Your task to perform on an android device: open sync settings in chrome Image 0: 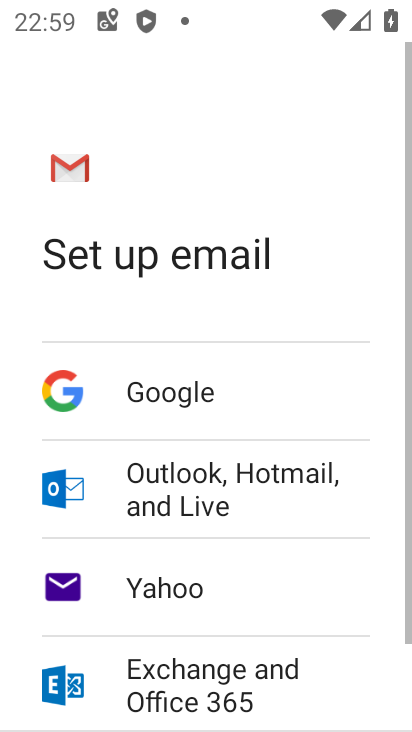
Step 0: press home button
Your task to perform on an android device: open sync settings in chrome Image 1: 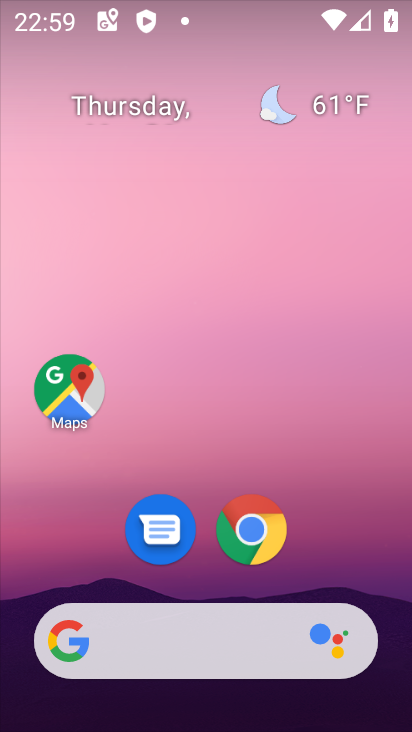
Step 1: click (277, 540)
Your task to perform on an android device: open sync settings in chrome Image 2: 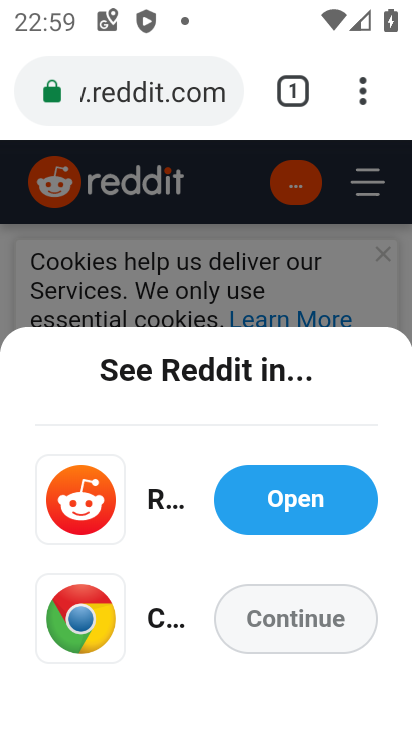
Step 2: click (367, 98)
Your task to perform on an android device: open sync settings in chrome Image 3: 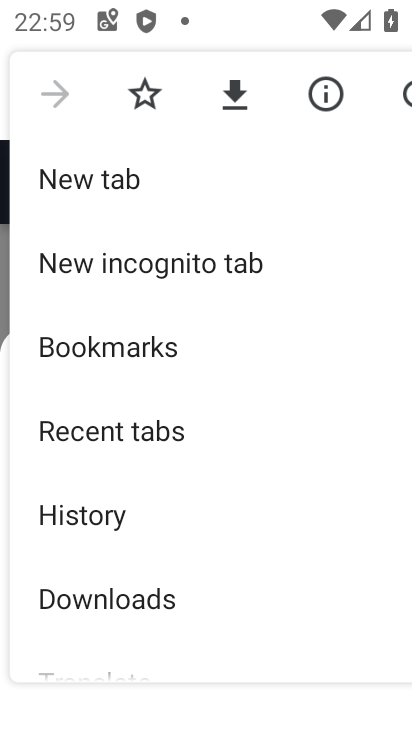
Step 3: drag from (203, 563) to (205, 260)
Your task to perform on an android device: open sync settings in chrome Image 4: 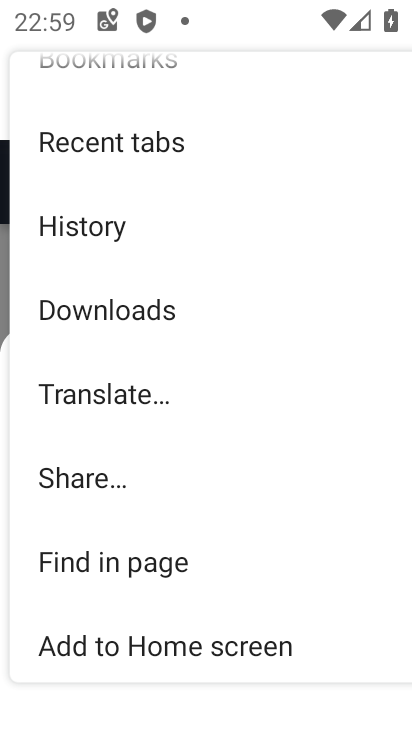
Step 4: drag from (196, 609) to (215, 244)
Your task to perform on an android device: open sync settings in chrome Image 5: 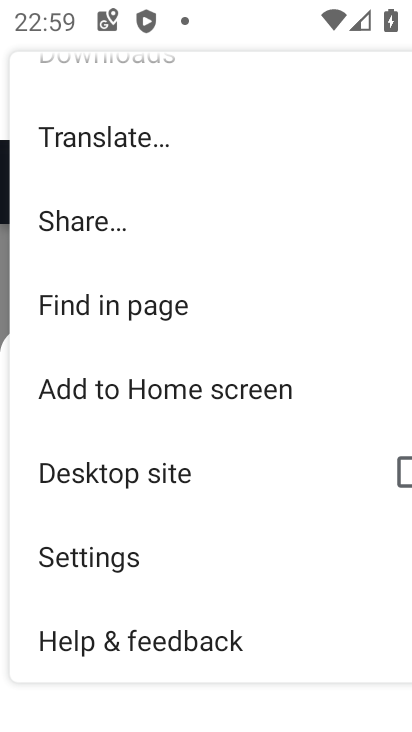
Step 5: click (174, 559)
Your task to perform on an android device: open sync settings in chrome Image 6: 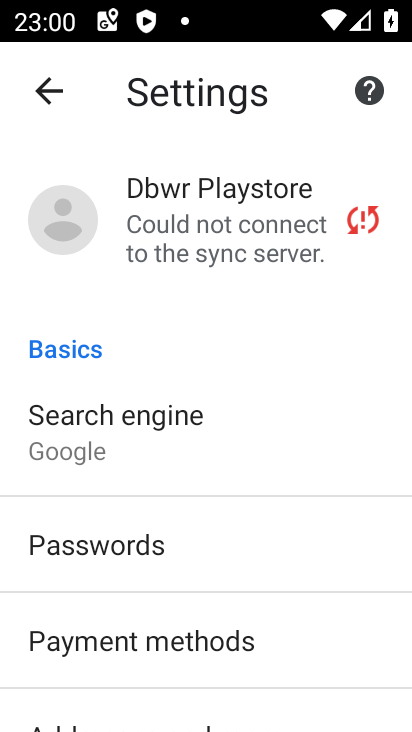
Step 6: drag from (174, 559) to (173, 237)
Your task to perform on an android device: open sync settings in chrome Image 7: 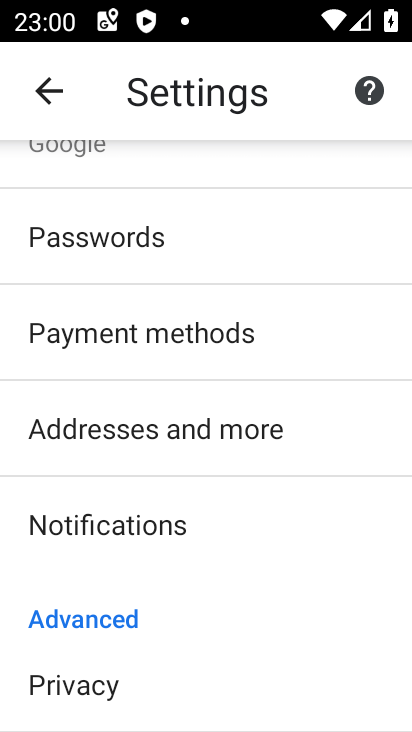
Step 7: drag from (135, 603) to (153, 373)
Your task to perform on an android device: open sync settings in chrome Image 8: 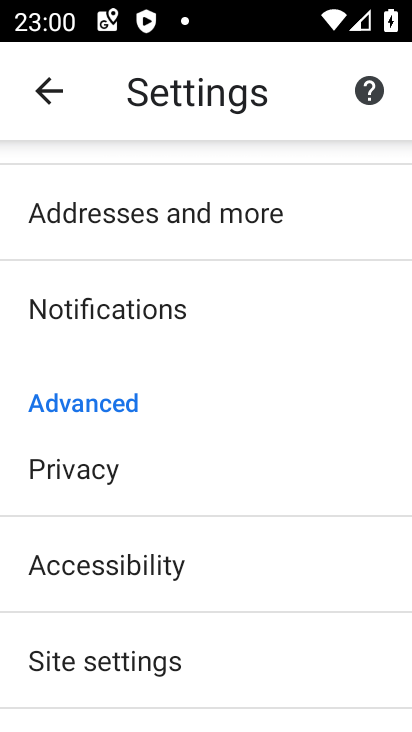
Step 8: drag from (211, 311) to (194, 700)
Your task to perform on an android device: open sync settings in chrome Image 9: 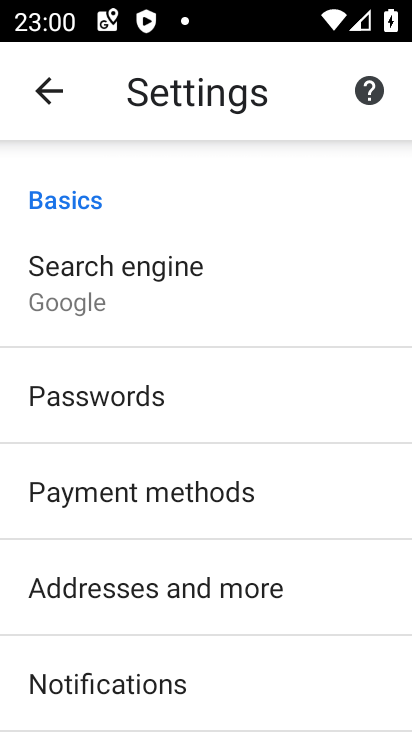
Step 9: drag from (198, 275) to (220, 513)
Your task to perform on an android device: open sync settings in chrome Image 10: 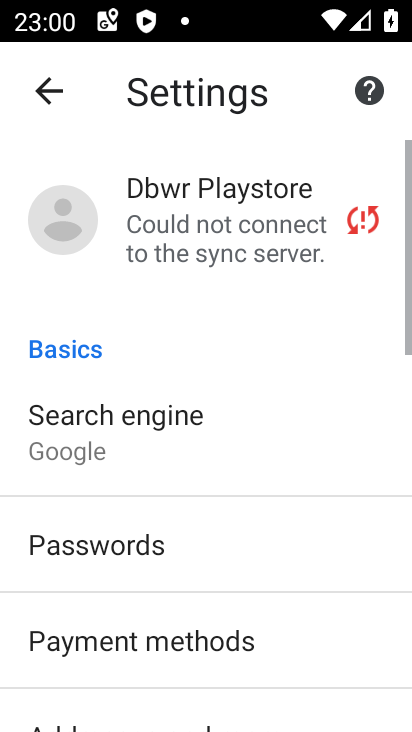
Step 10: click (225, 227)
Your task to perform on an android device: open sync settings in chrome Image 11: 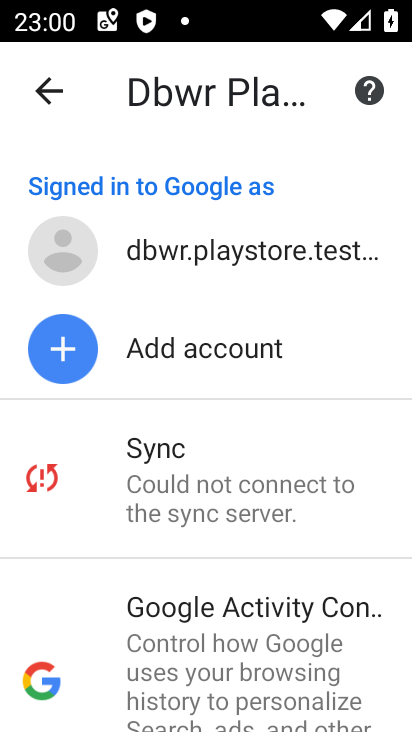
Step 11: click (229, 415)
Your task to perform on an android device: open sync settings in chrome Image 12: 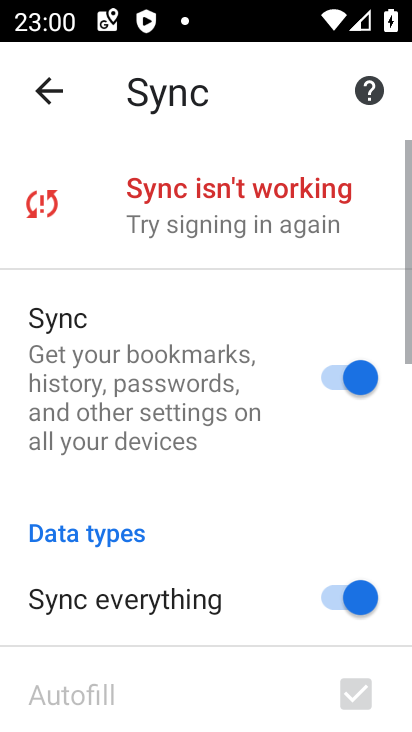
Step 12: task complete